Your task to perform on an android device: toggle priority inbox in the gmail app Image 0: 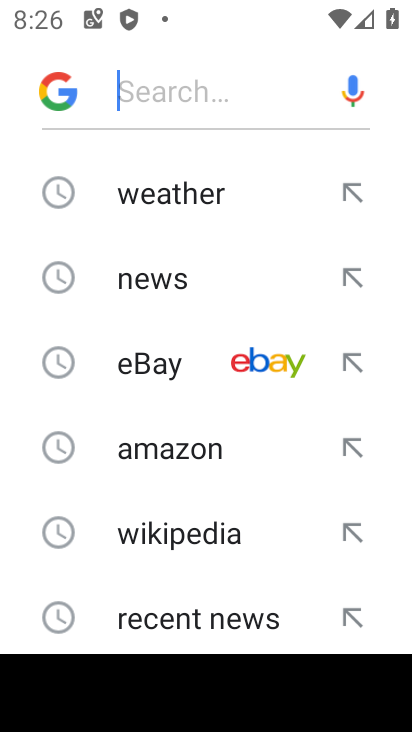
Step 0: press back button
Your task to perform on an android device: toggle priority inbox in the gmail app Image 1: 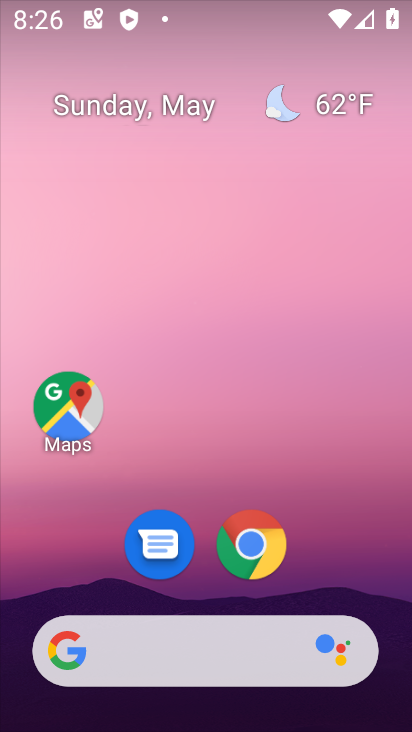
Step 1: drag from (296, 566) to (277, 33)
Your task to perform on an android device: toggle priority inbox in the gmail app Image 2: 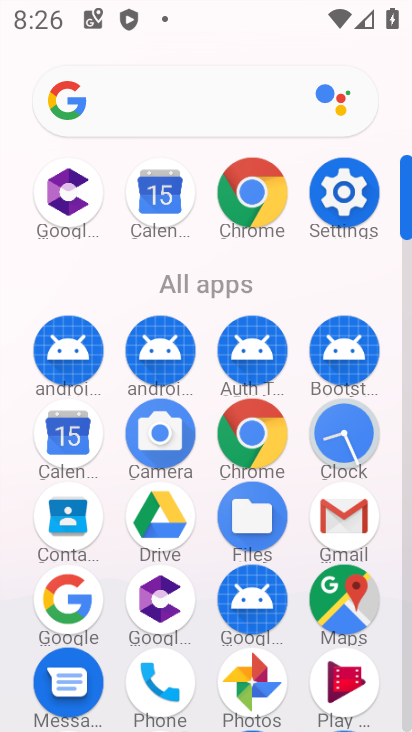
Step 2: click (339, 521)
Your task to perform on an android device: toggle priority inbox in the gmail app Image 3: 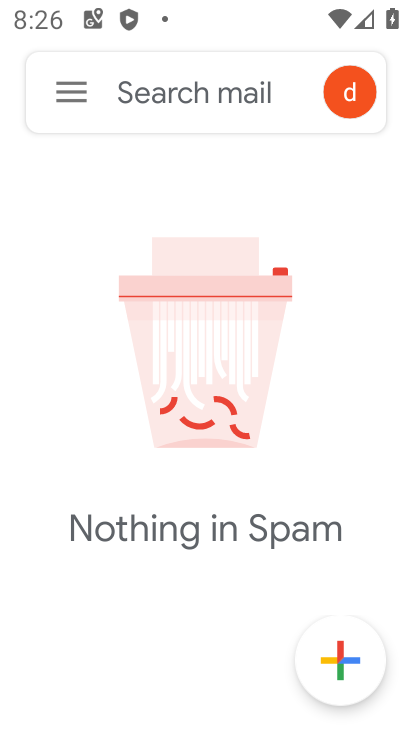
Step 3: click (67, 96)
Your task to perform on an android device: toggle priority inbox in the gmail app Image 4: 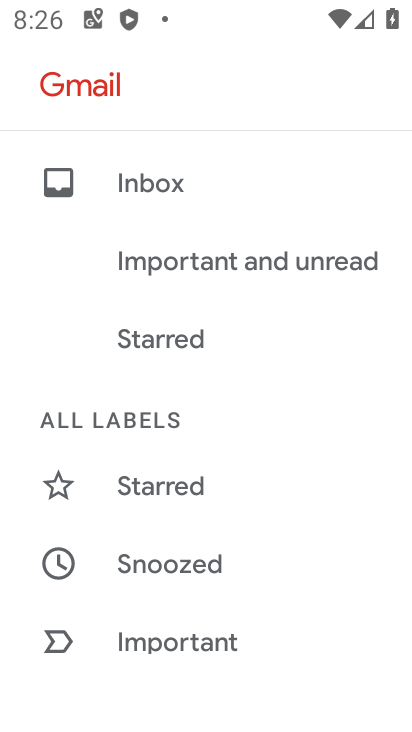
Step 4: drag from (220, 592) to (289, 94)
Your task to perform on an android device: toggle priority inbox in the gmail app Image 5: 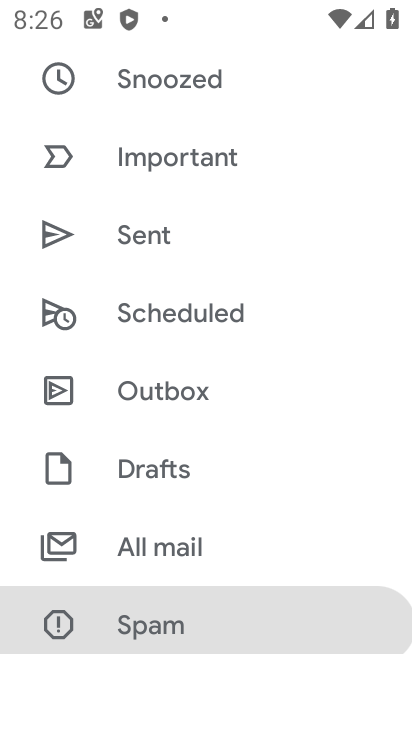
Step 5: drag from (174, 573) to (245, 197)
Your task to perform on an android device: toggle priority inbox in the gmail app Image 6: 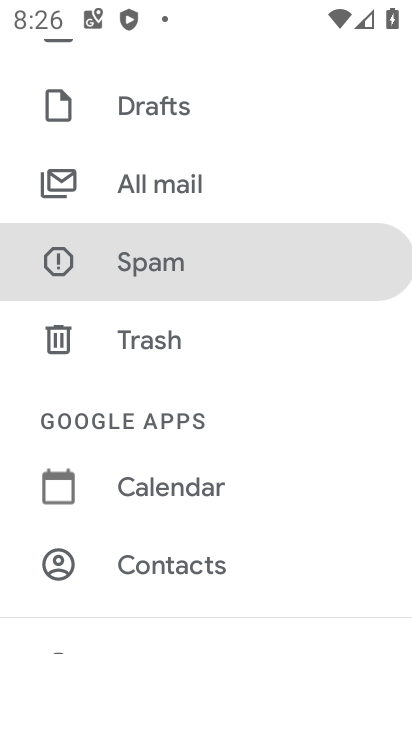
Step 6: drag from (158, 582) to (185, 301)
Your task to perform on an android device: toggle priority inbox in the gmail app Image 7: 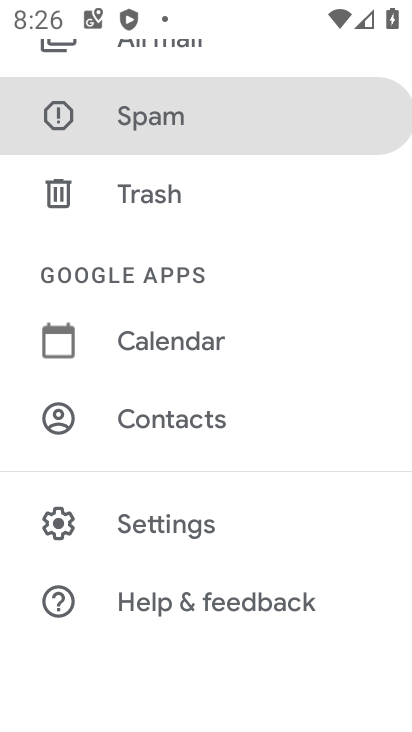
Step 7: click (148, 531)
Your task to perform on an android device: toggle priority inbox in the gmail app Image 8: 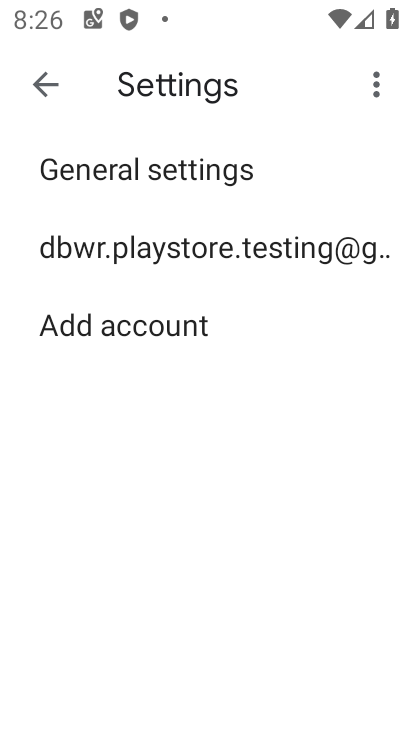
Step 8: click (211, 261)
Your task to perform on an android device: toggle priority inbox in the gmail app Image 9: 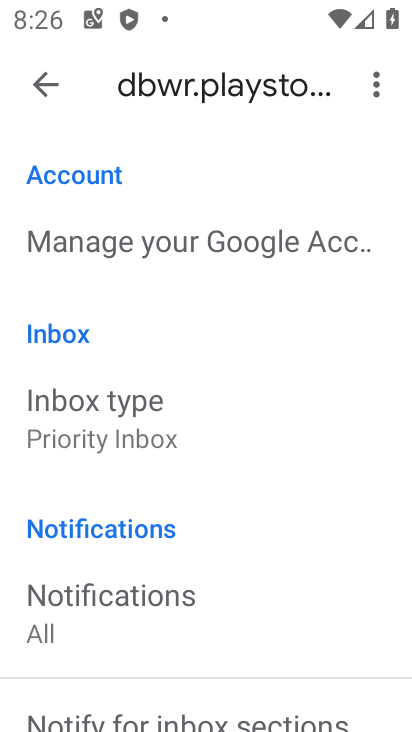
Step 9: click (112, 460)
Your task to perform on an android device: toggle priority inbox in the gmail app Image 10: 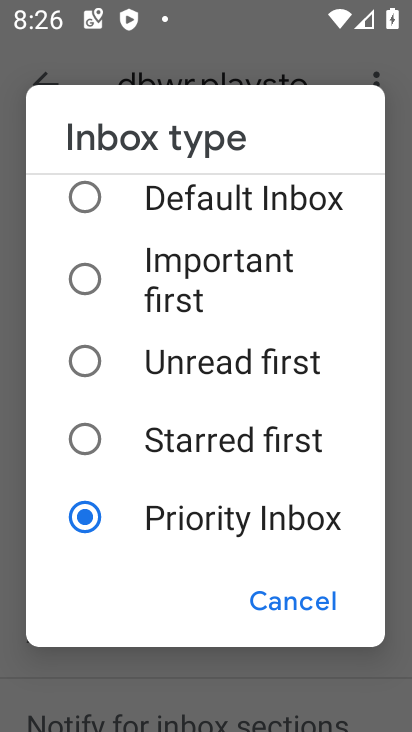
Step 10: click (79, 195)
Your task to perform on an android device: toggle priority inbox in the gmail app Image 11: 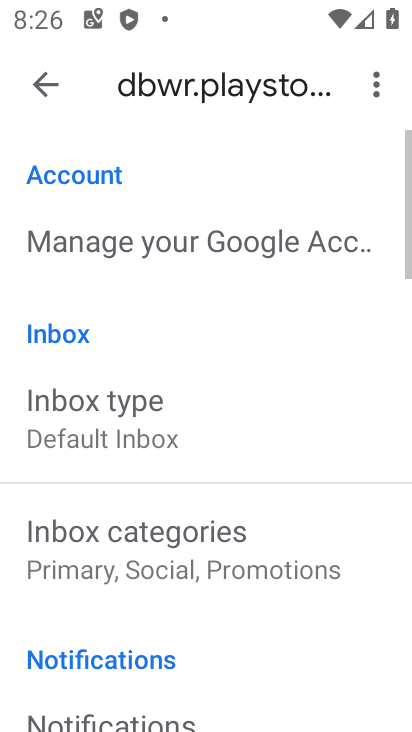
Step 11: task complete